Your task to perform on an android device: turn pop-ups off in chrome Image 0: 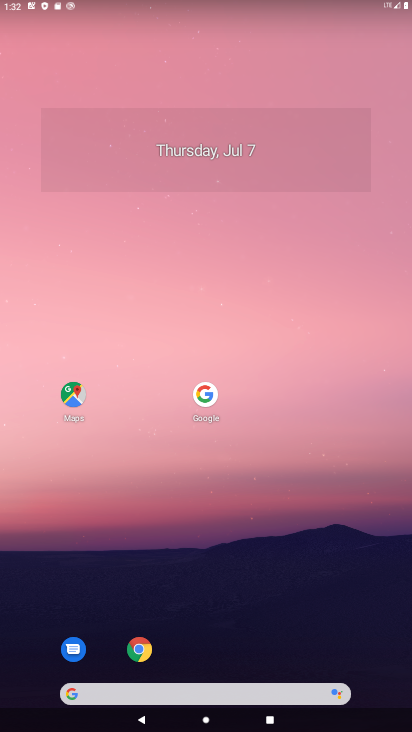
Step 0: click (142, 653)
Your task to perform on an android device: turn pop-ups off in chrome Image 1: 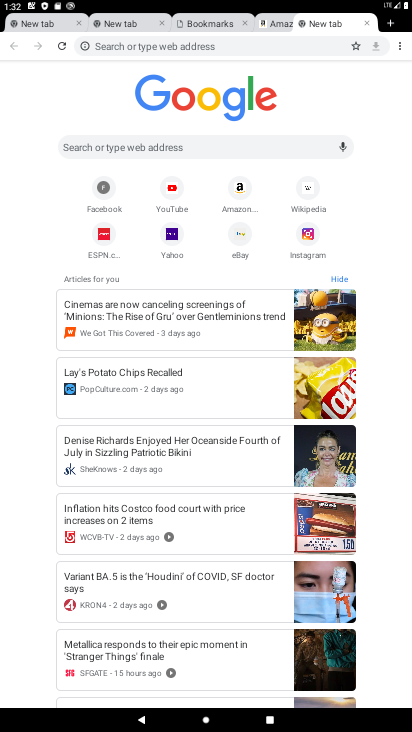
Step 1: click (402, 49)
Your task to perform on an android device: turn pop-ups off in chrome Image 2: 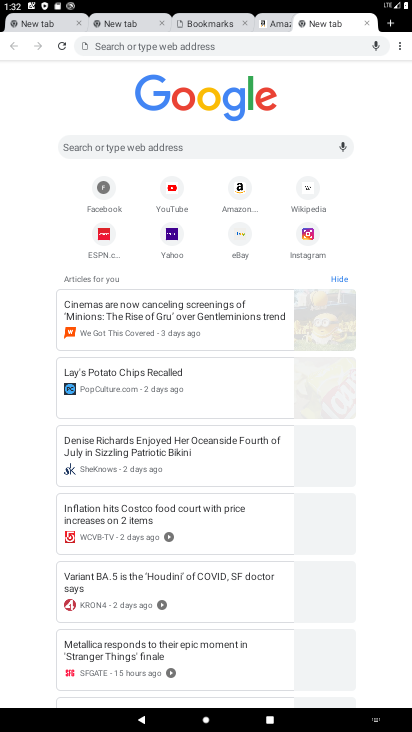
Step 2: drag from (402, 49) to (315, 209)
Your task to perform on an android device: turn pop-ups off in chrome Image 3: 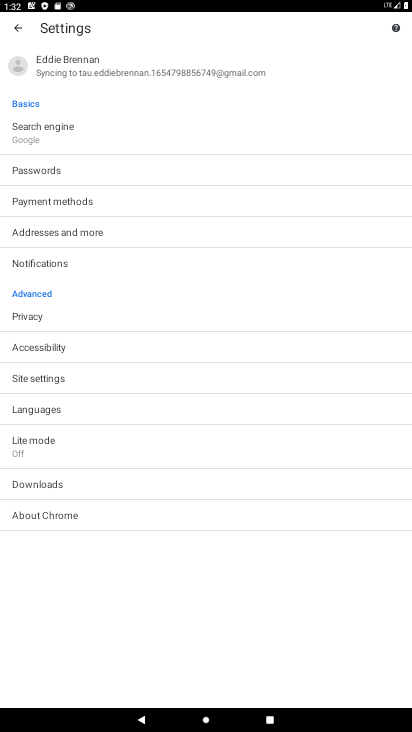
Step 3: click (86, 373)
Your task to perform on an android device: turn pop-ups off in chrome Image 4: 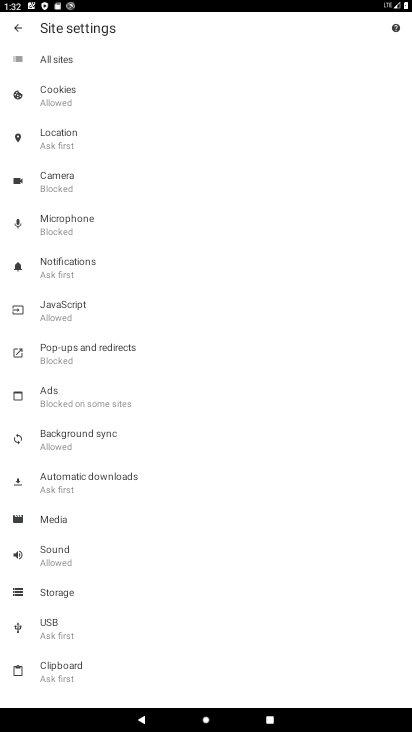
Step 4: click (103, 349)
Your task to perform on an android device: turn pop-ups off in chrome Image 5: 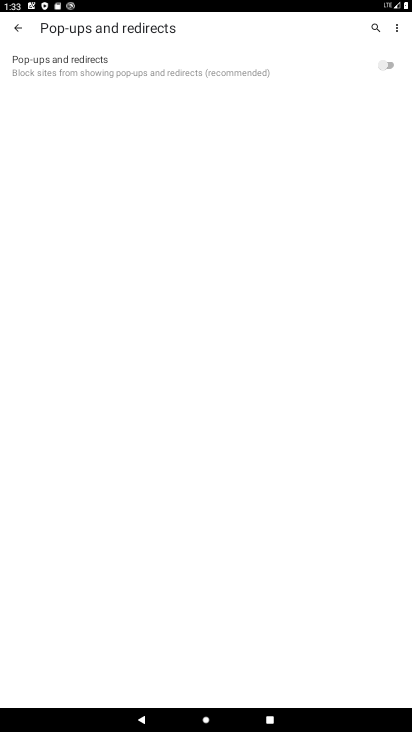
Step 5: task complete